Your task to perform on an android device: toggle priority inbox in the gmail app Image 0: 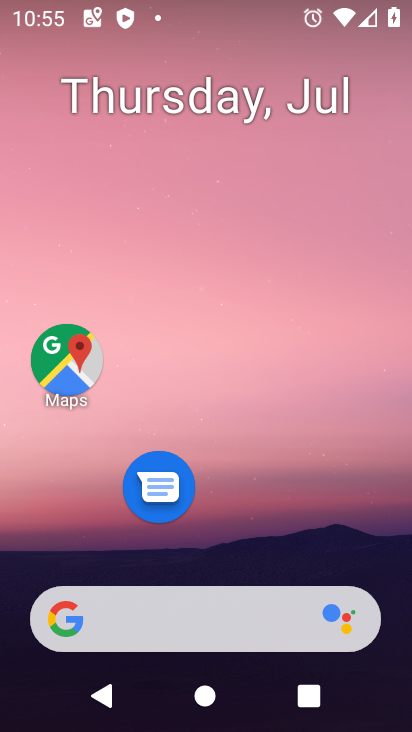
Step 0: drag from (243, 651) to (237, 64)
Your task to perform on an android device: toggle priority inbox in the gmail app Image 1: 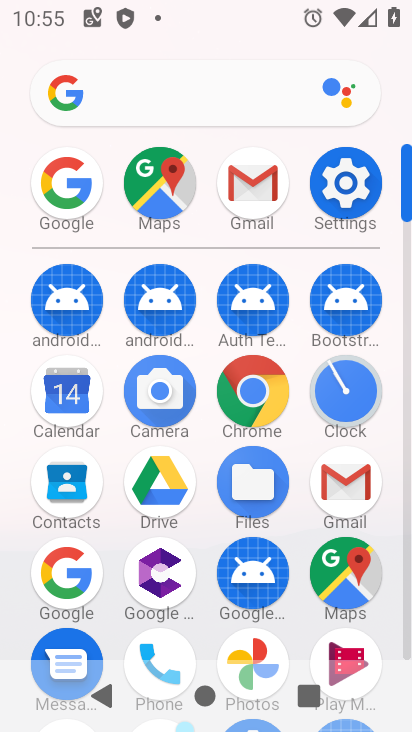
Step 1: click (370, 487)
Your task to perform on an android device: toggle priority inbox in the gmail app Image 2: 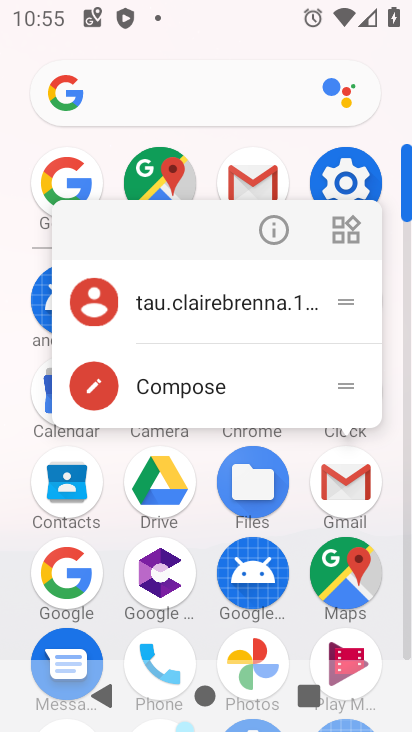
Step 2: click (369, 486)
Your task to perform on an android device: toggle priority inbox in the gmail app Image 3: 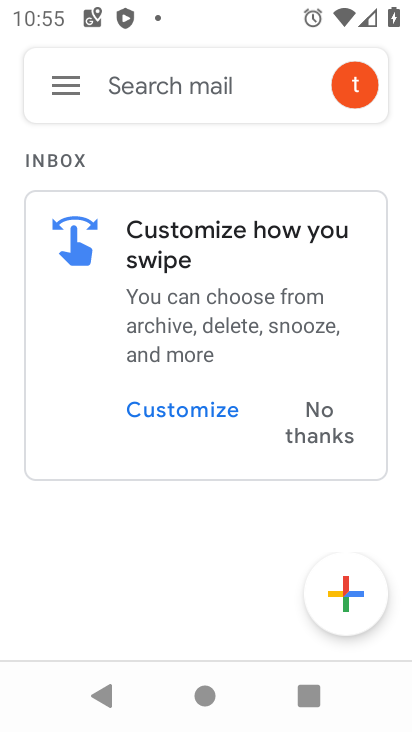
Step 3: click (63, 87)
Your task to perform on an android device: toggle priority inbox in the gmail app Image 4: 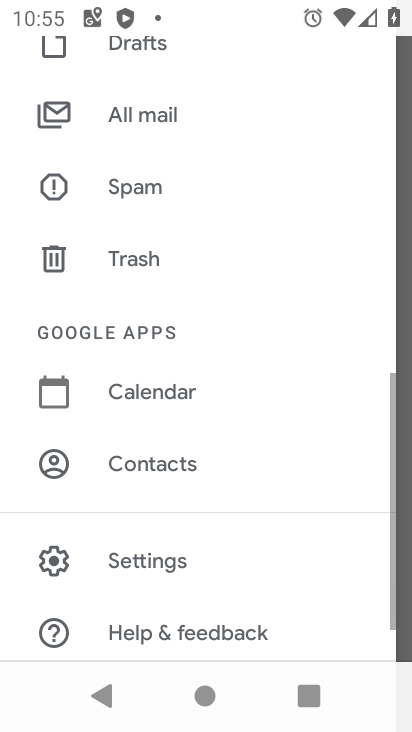
Step 4: drag from (185, 490) to (187, 229)
Your task to perform on an android device: toggle priority inbox in the gmail app Image 5: 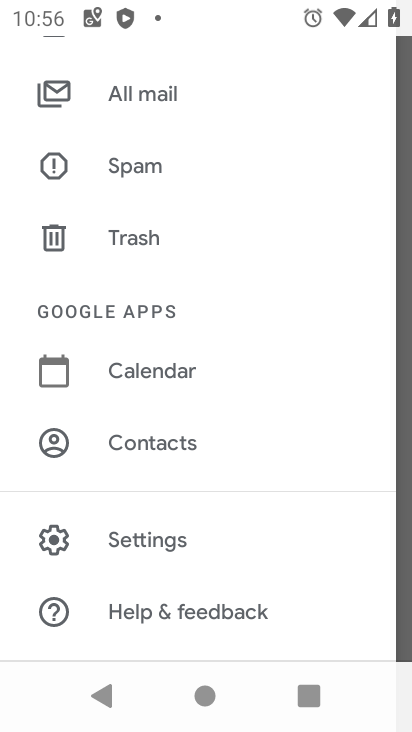
Step 5: click (181, 542)
Your task to perform on an android device: toggle priority inbox in the gmail app Image 6: 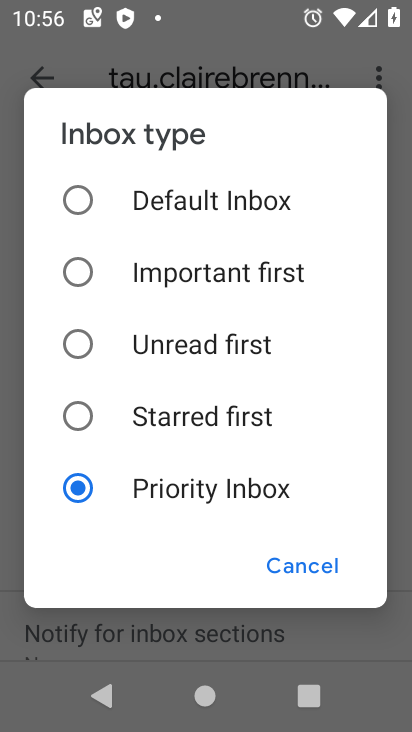
Step 6: click (131, 429)
Your task to perform on an android device: toggle priority inbox in the gmail app Image 7: 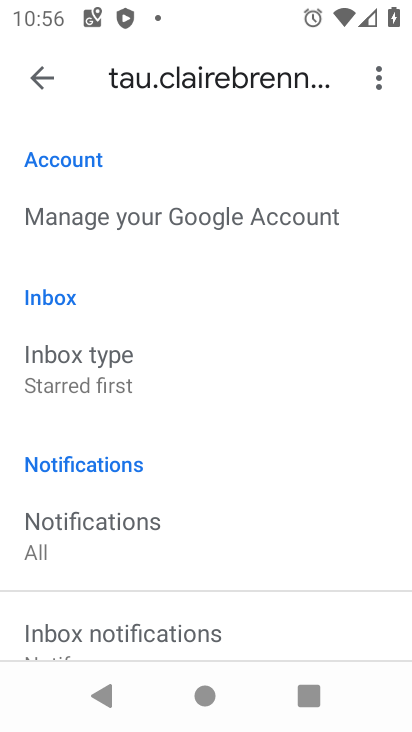
Step 7: task complete